Your task to perform on an android device: Open ESPN.com Image 0: 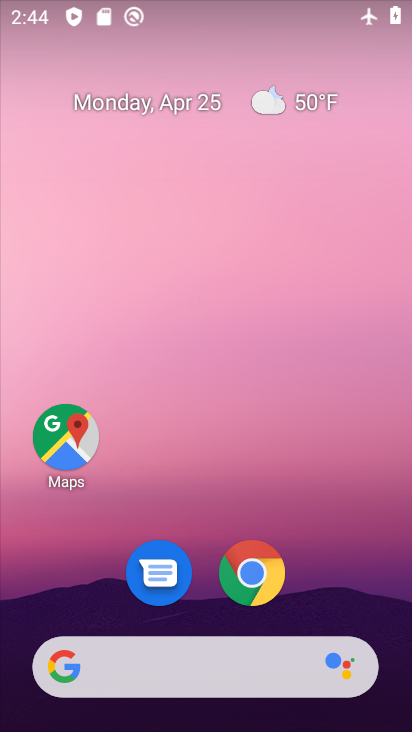
Step 0: drag from (328, 499) to (338, 125)
Your task to perform on an android device: Open ESPN.com Image 1: 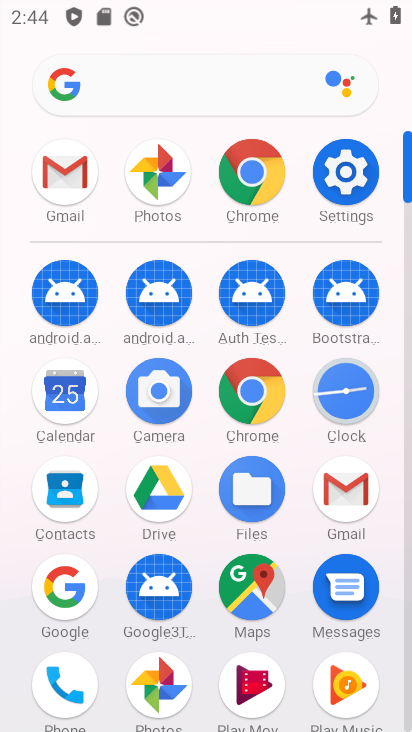
Step 1: click (267, 189)
Your task to perform on an android device: Open ESPN.com Image 2: 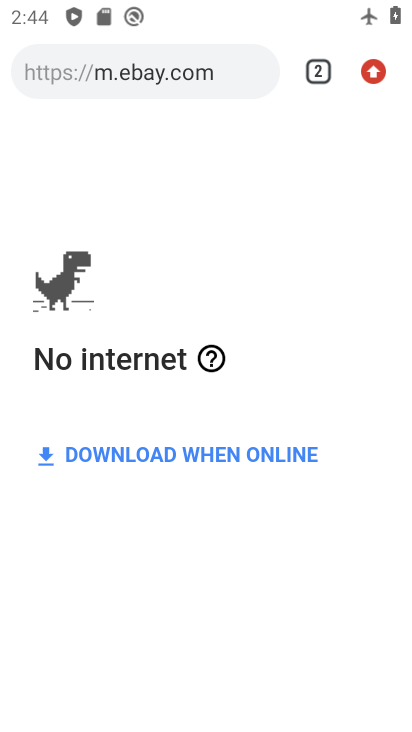
Step 2: click (195, 72)
Your task to perform on an android device: Open ESPN.com Image 3: 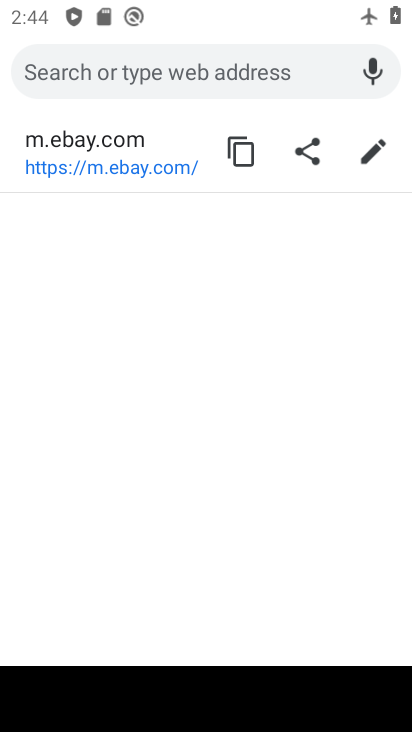
Step 3: type "espn.com"
Your task to perform on an android device: Open ESPN.com Image 4: 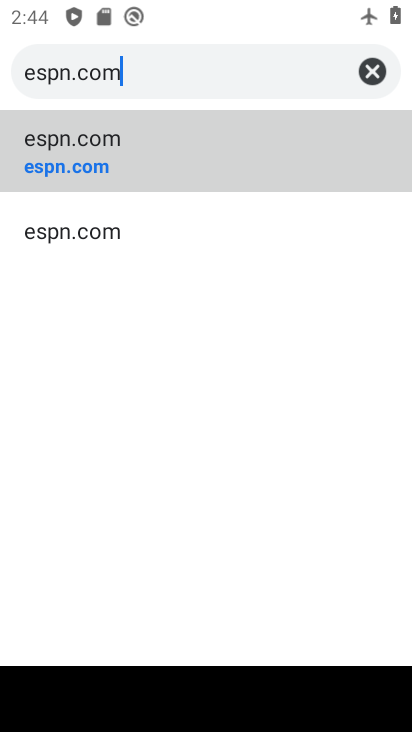
Step 4: click (49, 176)
Your task to perform on an android device: Open ESPN.com Image 5: 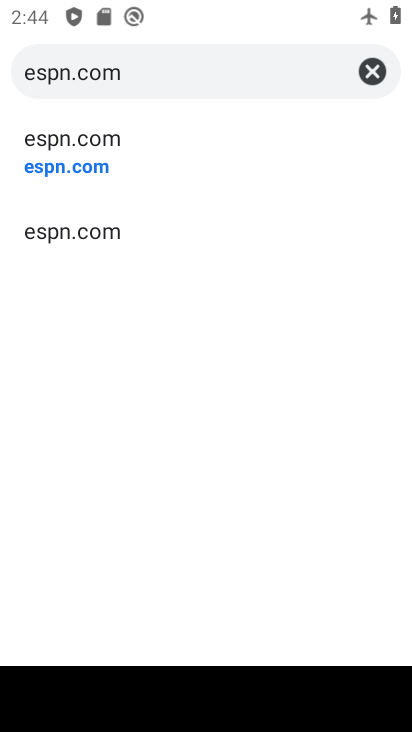
Step 5: click (69, 168)
Your task to perform on an android device: Open ESPN.com Image 6: 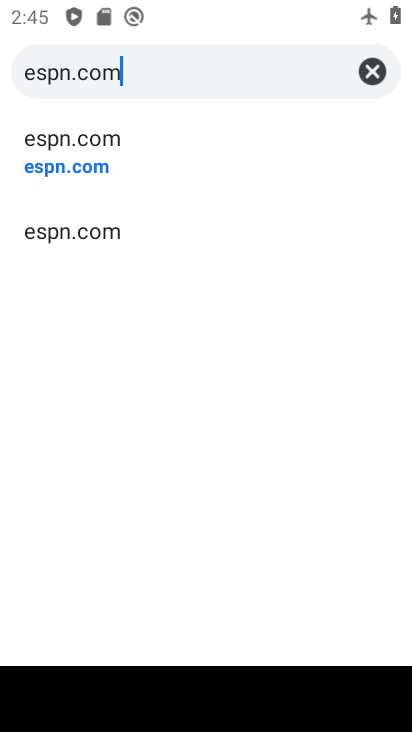
Step 6: click (69, 168)
Your task to perform on an android device: Open ESPN.com Image 7: 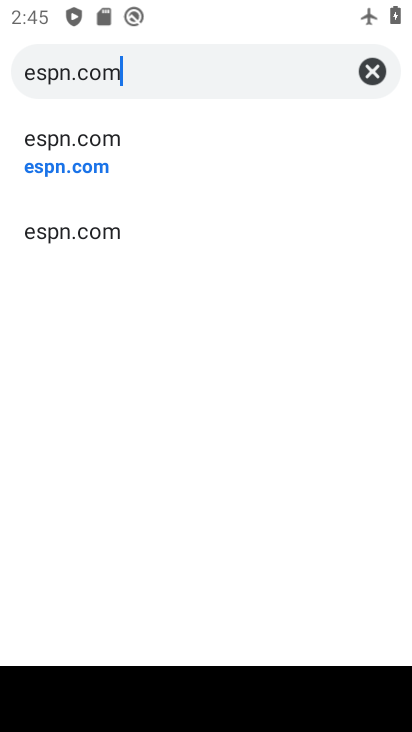
Step 7: click (69, 168)
Your task to perform on an android device: Open ESPN.com Image 8: 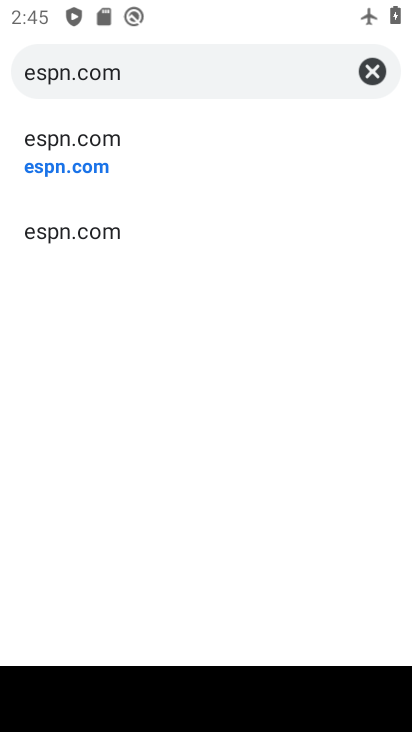
Step 8: click (69, 168)
Your task to perform on an android device: Open ESPN.com Image 9: 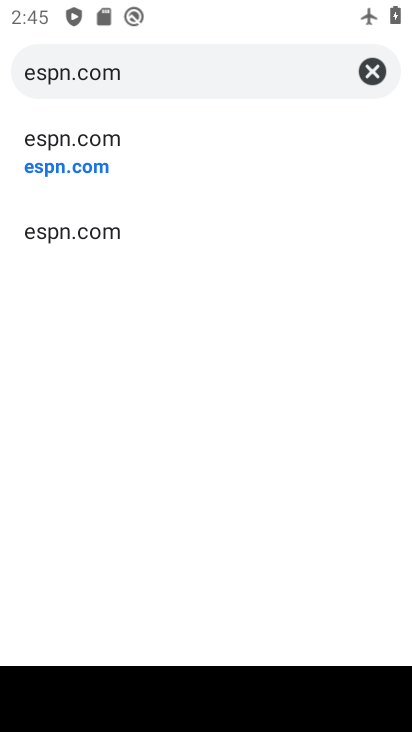
Step 9: click (112, 160)
Your task to perform on an android device: Open ESPN.com Image 10: 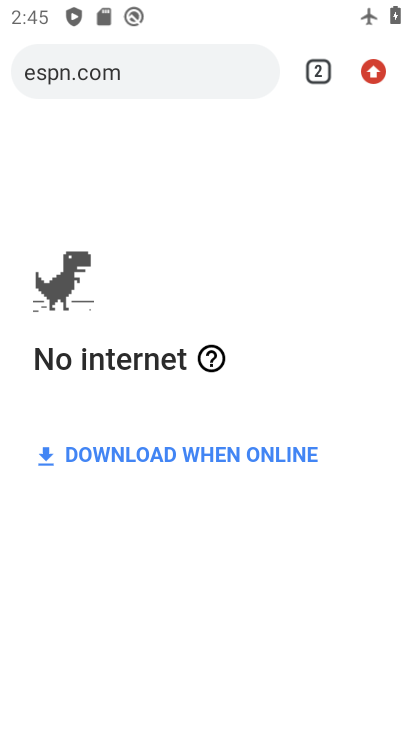
Step 10: task complete